Your task to perform on an android device: What's on my calendar tomorrow? Image 0: 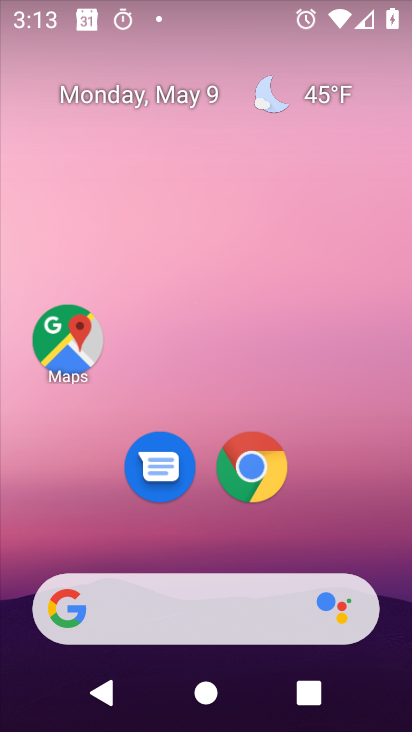
Step 0: drag from (311, 478) to (286, 99)
Your task to perform on an android device: What's on my calendar tomorrow? Image 1: 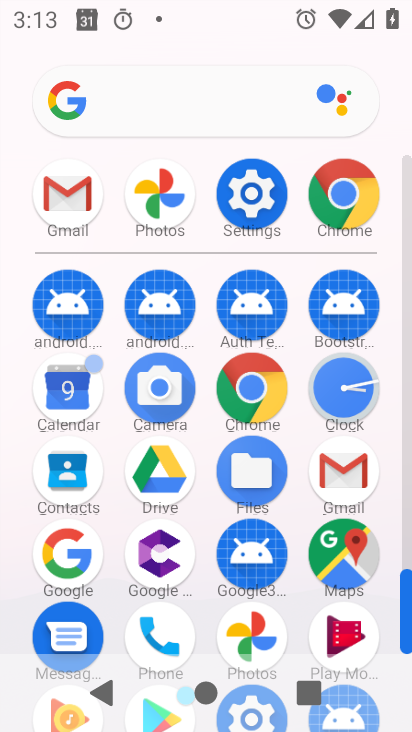
Step 1: click (46, 385)
Your task to perform on an android device: What's on my calendar tomorrow? Image 2: 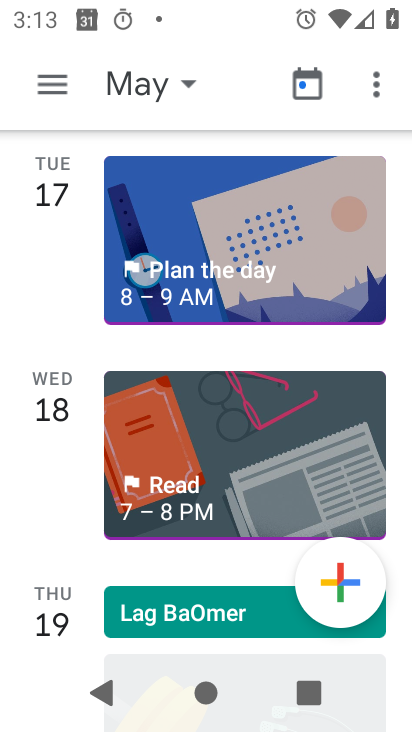
Step 2: click (149, 87)
Your task to perform on an android device: What's on my calendar tomorrow? Image 3: 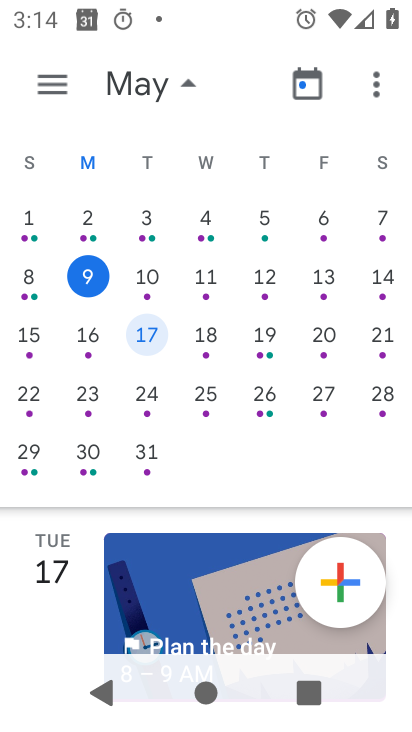
Step 3: click (153, 273)
Your task to perform on an android device: What's on my calendar tomorrow? Image 4: 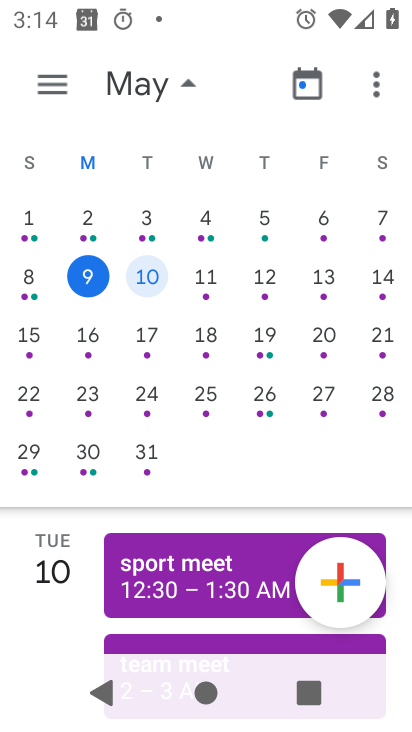
Step 4: task complete